Your task to perform on an android device: turn on wifi Image 0: 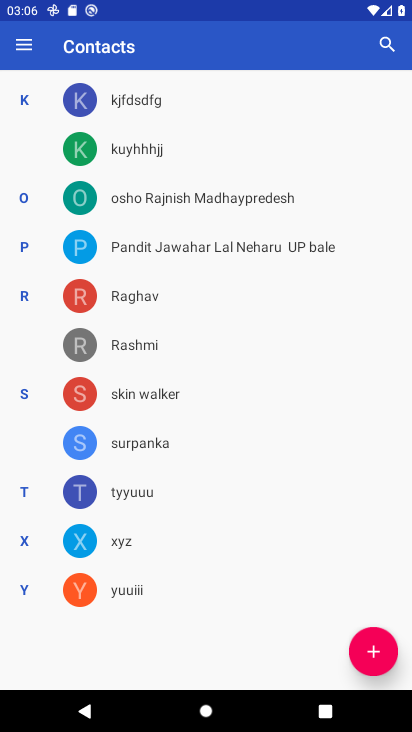
Step 0: press home button
Your task to perform on an android device: turn on wifi Image 1: 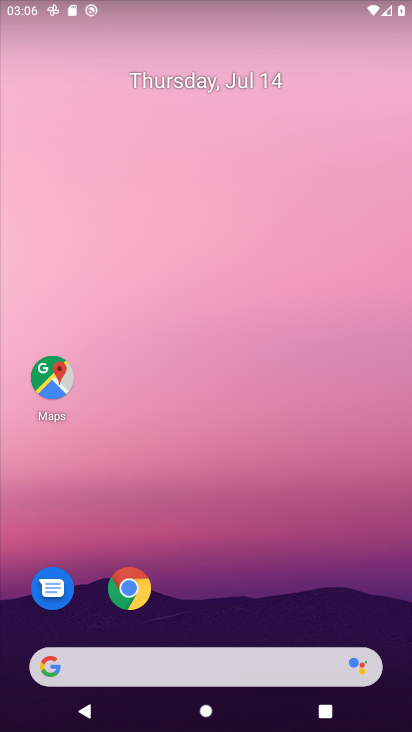
Step 1: drag from (229, 616) to (155, 149)
Your task to perform on an android device: turn on wifi Image 2: 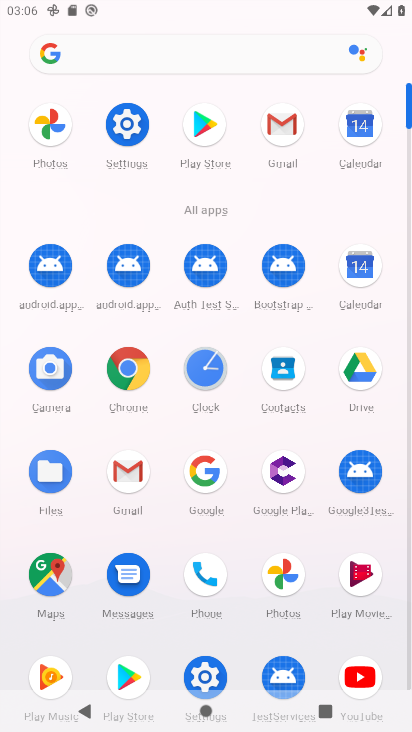
Step 2: click (108, 129)
Your task to perform on an android device: turn on wifi Image 3: 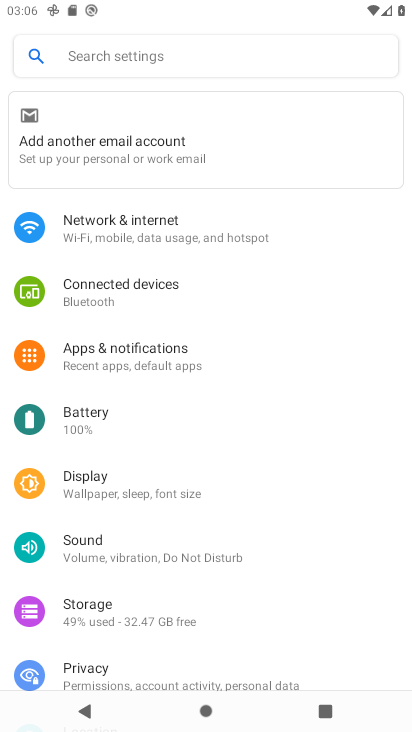
Step 3: click (173, 235)
Your task to perform on an android device: turn on wifi Image 4: 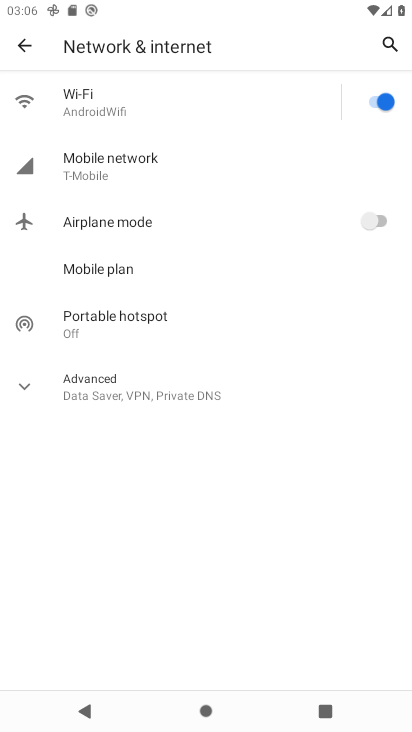
Step 4: click (128, 94)
Your task to perform on an android device: turn on wifi Image 5: 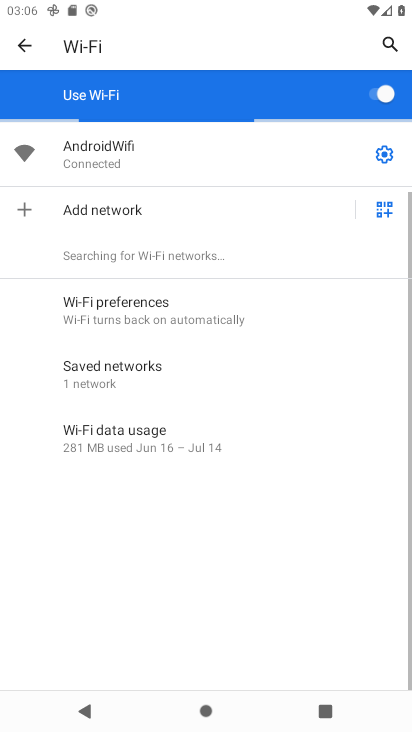
Step 5: task complete